Your task to perform on an android device: install app "Google Translate" Image 0: 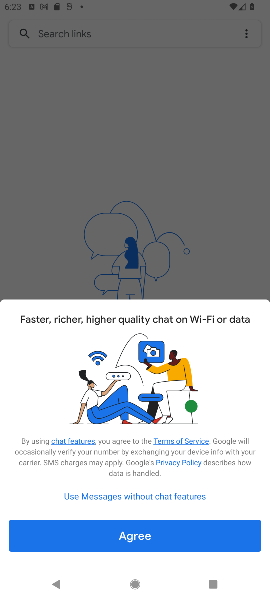
Step 0: press home button
Your task to perform on an android device: install app "Google Translate" Image 1: 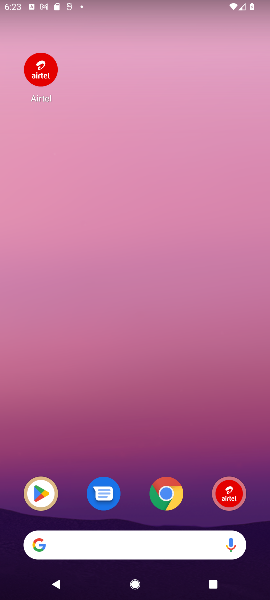
Step 1: click (39, 495)
Your task to perform on an android device: install app "Google Translate" Image 2: 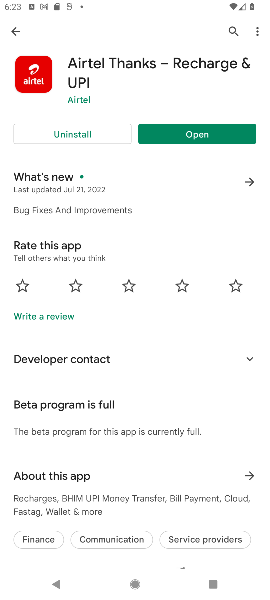
Step 2: click (231, 29)
Your task to perform on an android device: install app "Google Translate" Image 3: 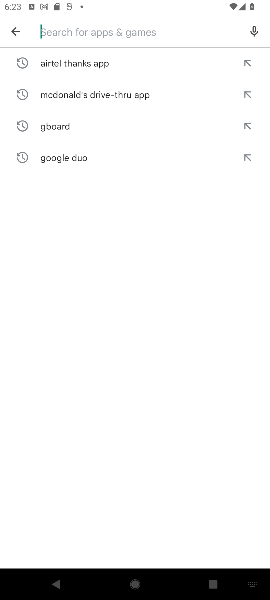
Step 3: type "Google Translate"
Your task to perform on an android device: install app "Google Translate" Image 4: 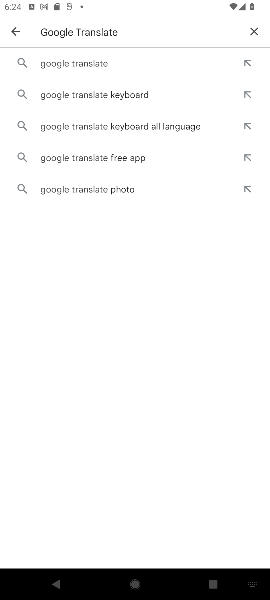
Step 4: click (63, 63)
Your task to perform on an android device: install app "Google Translate" Image 5: 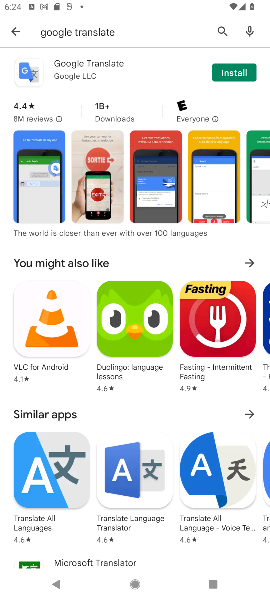
Step 5: click (228, 70)
Your task to perform on an android device: install app "Google Translate" Image 6: 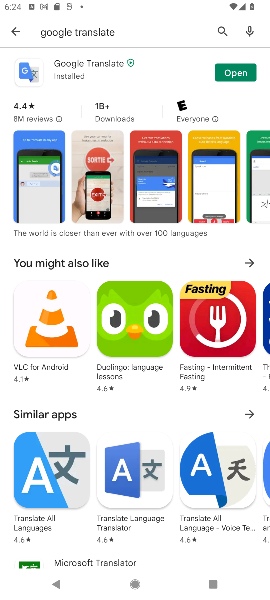
Step 6: task complete